Your task to perform on an android device: turn notification dots off Image 0: 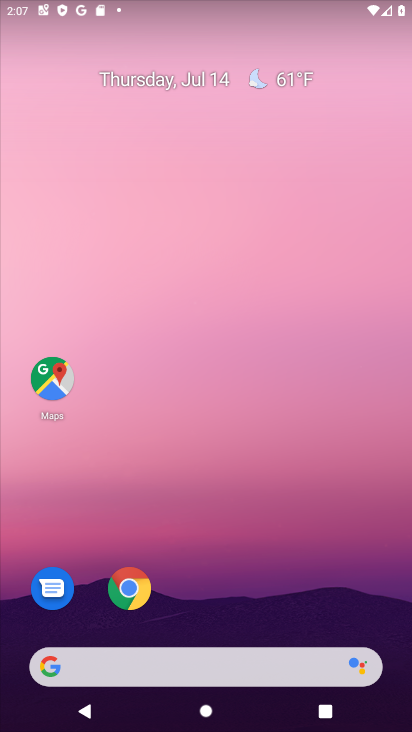
Step 0: drag from (246, 625) to (243, 121)
Your task to perform on an android device: turn notification dots off Image 1: 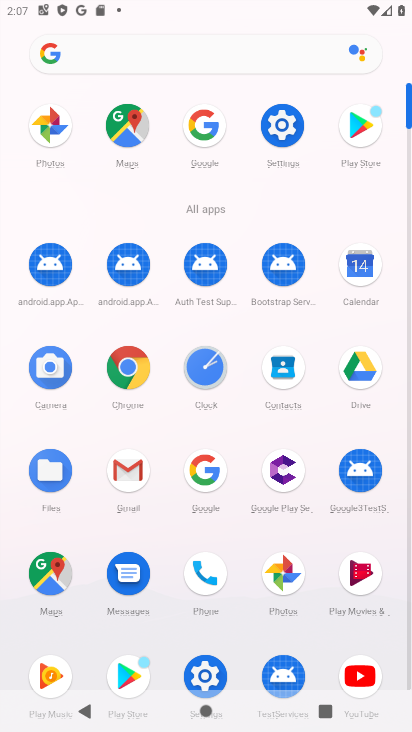
Step 1: drag from (236, 633) to (223, 315)
Your task to perform on an android device: turn notification dots off Image 2: 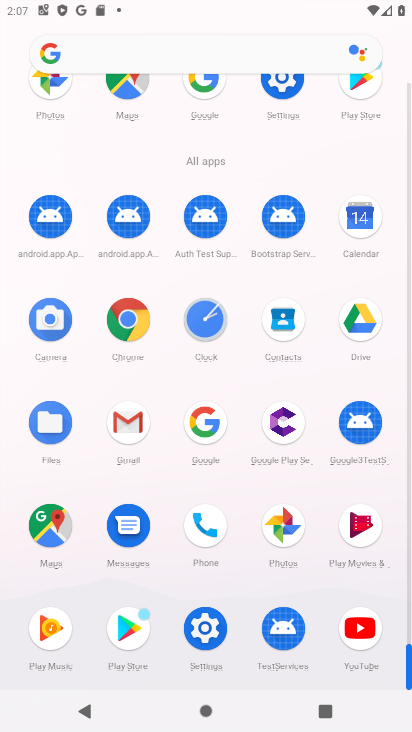
Step 2: click (207, 629)
Your task to perform on an android device: turn notification dots off Image 3: 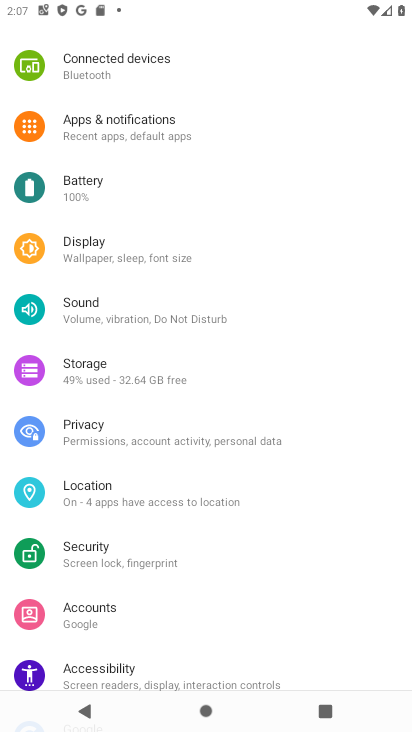
Step 3: click (151, 123)
Your task to perform on an android device: turn notification dots off Image 4: 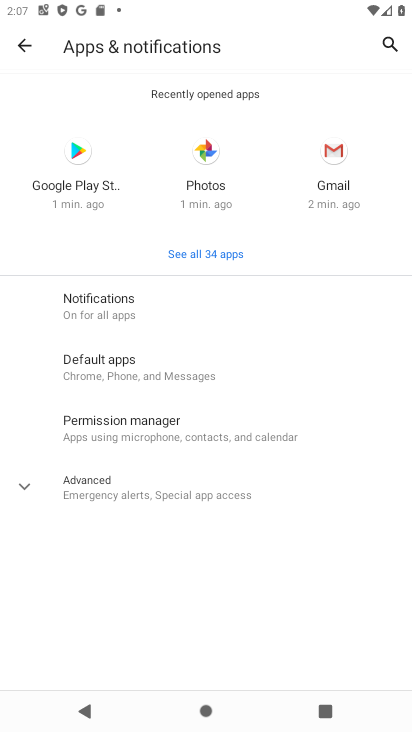
Step 4: click (140, 301)
Your task to perform on an android device: turn notification dots off Image 5: 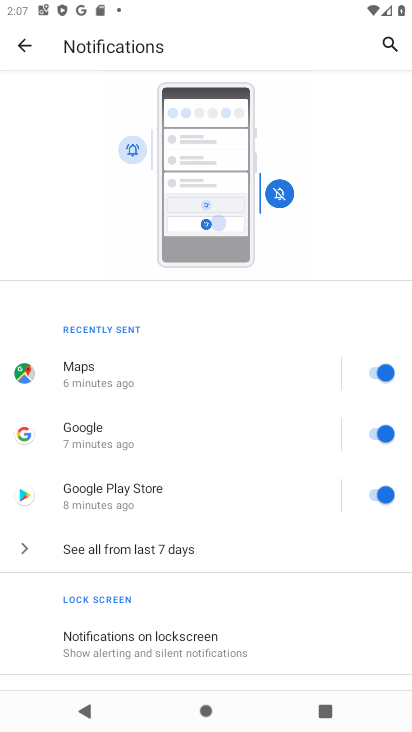
Step 5: drag from (238, 548) to (243, 152)
Your task to perform on an android device: turn notification dots off Image 6: 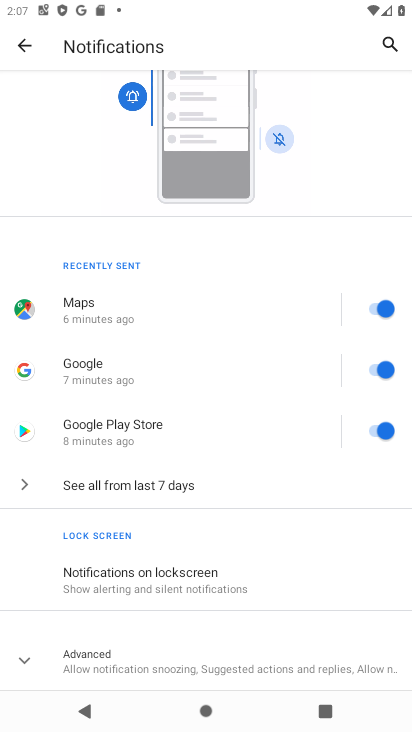
Step 6: click (90, 676)
Your task to perform on an android device: turn notification dots off Image 7: 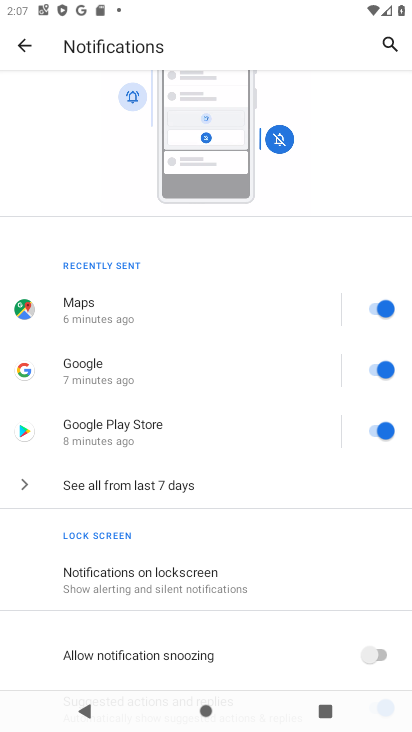
Step 7: drag from (182, 650) to (219, 237)
Your task to perform on an android device: turn notification dots off Image 8: 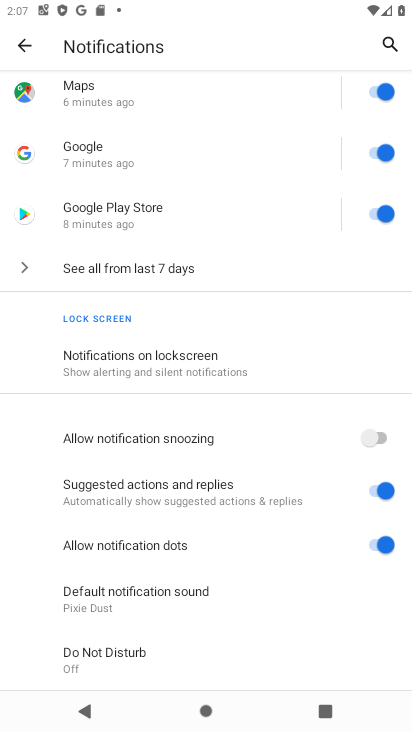
Step 8: drag from (207, 687) to (192, 316)
Your task to perform on an android device: turn notification dots off Image 9: 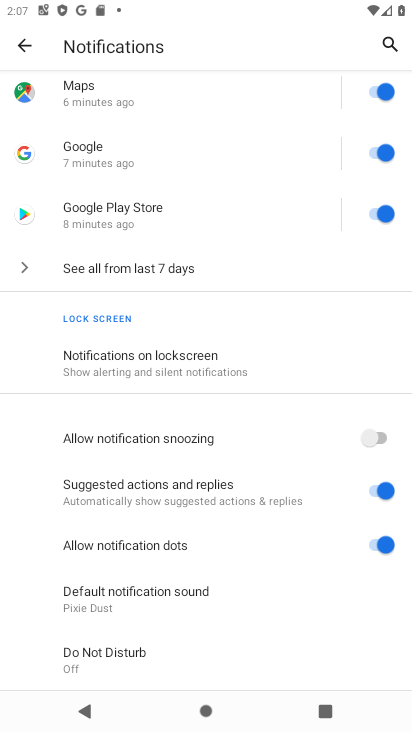
Step 9: click (378, 540)
Your task to perform on an android device: turn notification dots off Image 10: 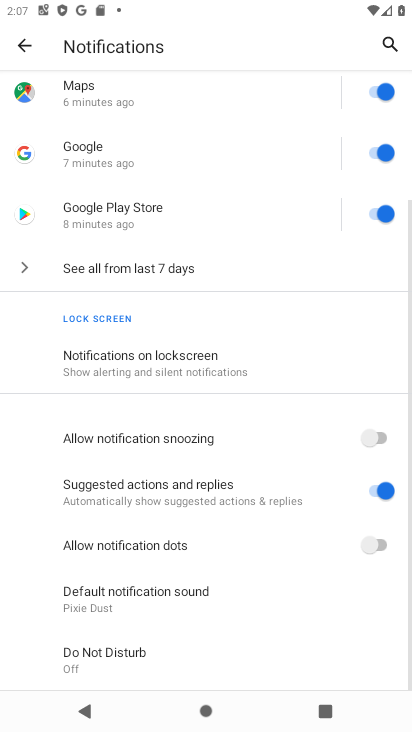
Step 10: task complete